Your task to perform on an android device: Go to Yahoo.com Image 0: 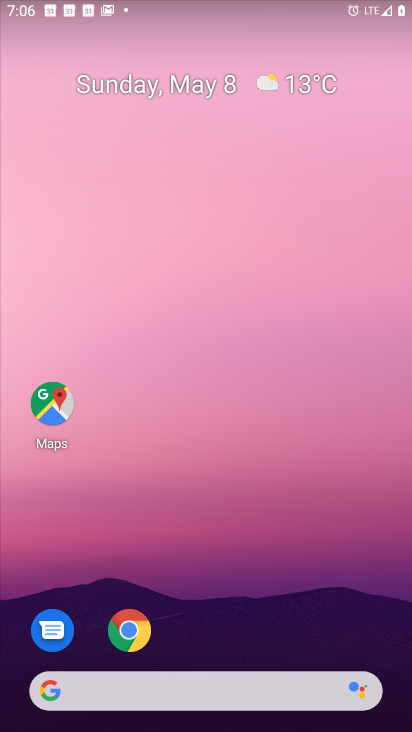
Step 0: click (127, 632)
Your task to perform on an android device: Go to Yahoo.com Image 1: 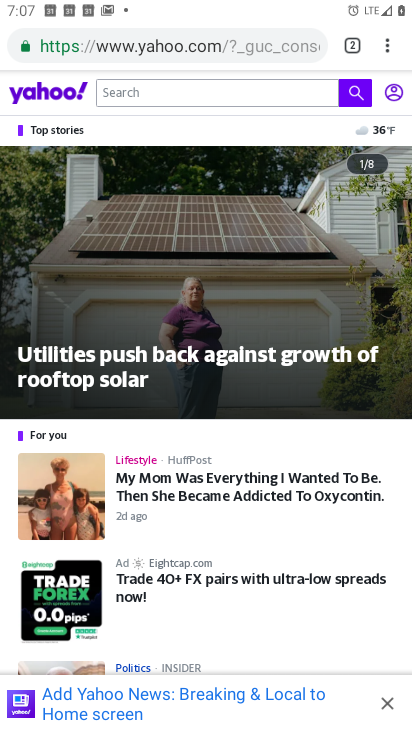
Step 1: task complete